Your task to perform on an android device: Open settings Image 0: 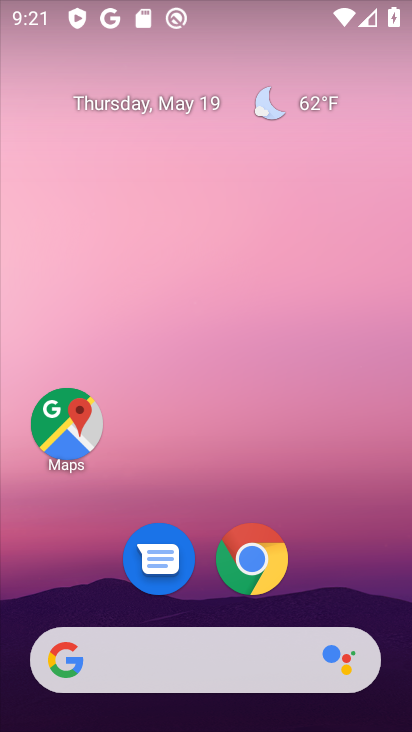
Step 0: drag from (312, 550) to (313, 75)
Your task to perform on an android device: Open settings Image 1: 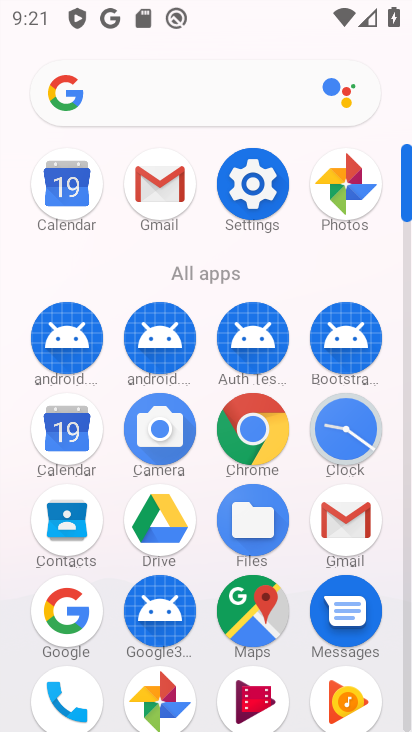
Step 1: click (248, 196)
Your task to perform on an android device: Open settings Image 2: 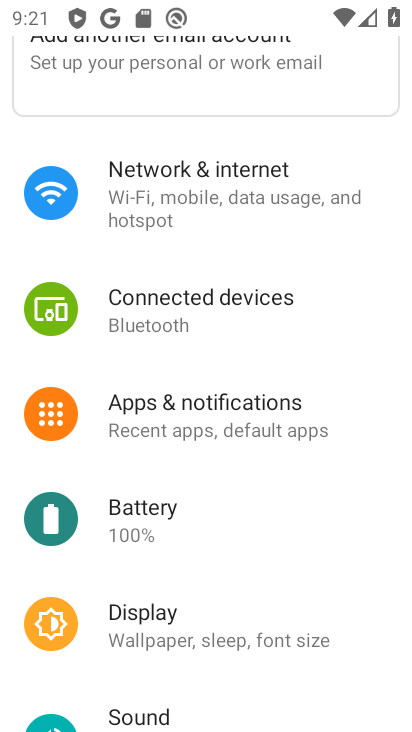
Step 2: task complete